Your task to perform on an android device: Do I have any events today? Image 0: 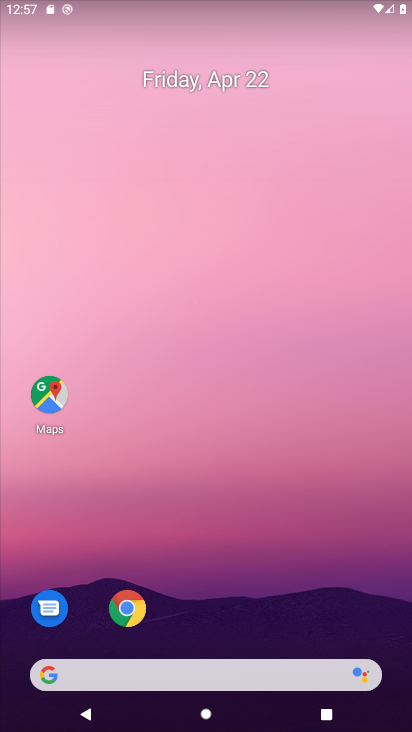
Step 0: drag from (268, 607) to (331, 85)
Your task to perform on an android device: Do I have any events today? Image 1: 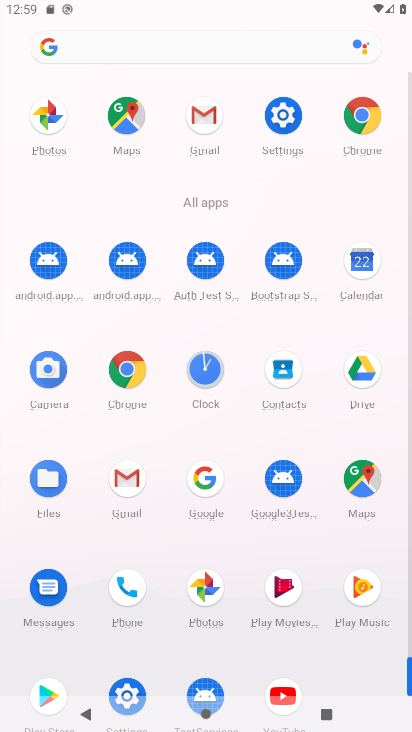
Step 1: click (365, 277)
Your task to perform on an android device: Do I have any events today? Image 2: 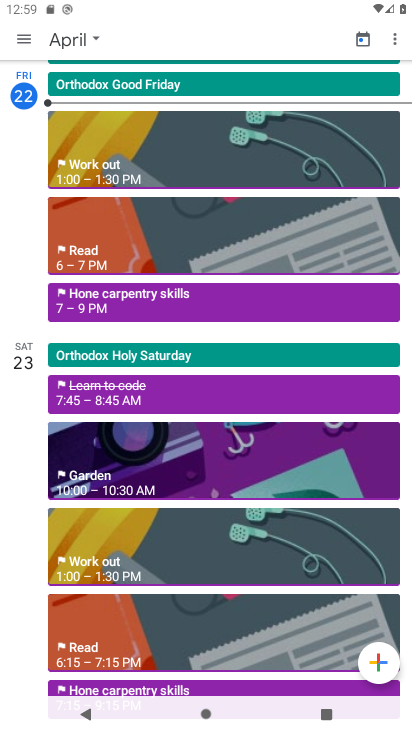
Step 2: click (103, 39)
Your task to perform on an android device: Do I have any events today? Image 3: 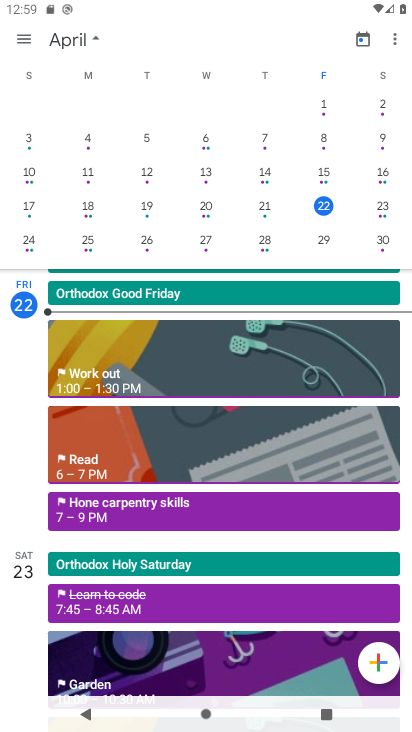
Step 3: click (320, 200)
Your task to perform on an android device: Do I have any events today? Image 4: 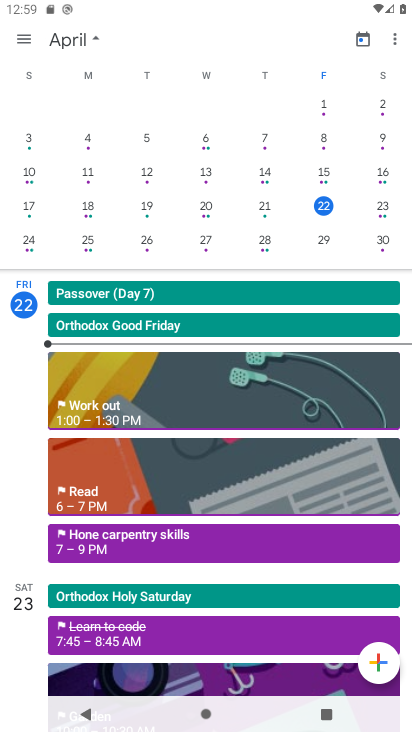
Step 4: click (113, 378)
Your task to perform on an android device: Do I have any events today? Image 5: 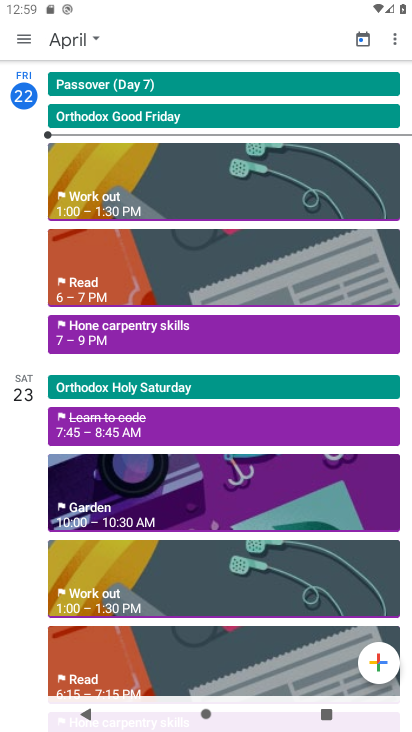
Step 5: task complete